Your task to perform on an android device: turn on sleep mode Image 0: 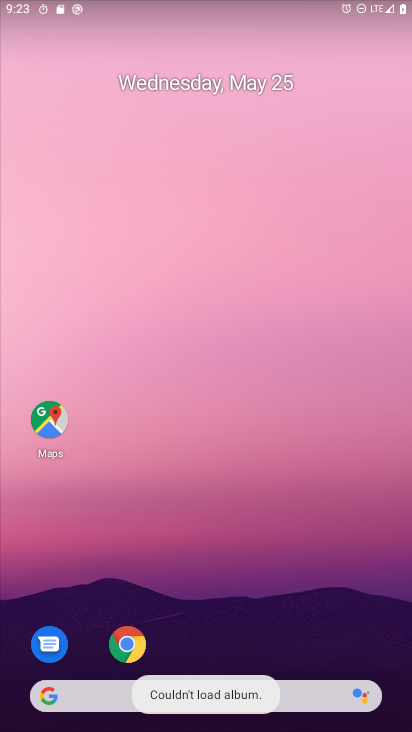
Step 0: drag from (347, 646) to (315, 29)
Your task to perform on an android device: turn on sleep mode Image 1: 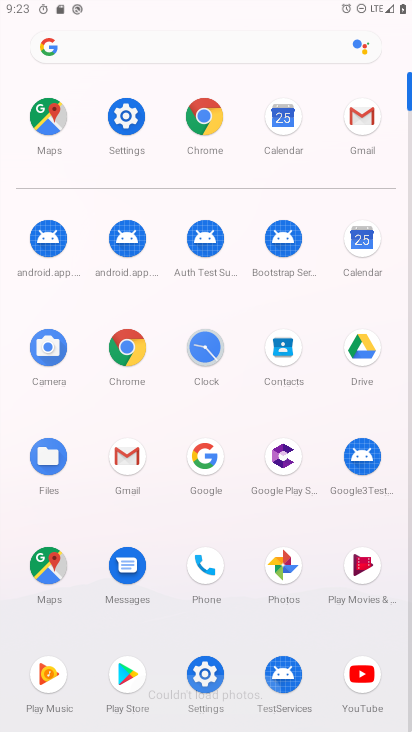
Step 1: click (128, 123)
Your task to perform on an android device: turn on sleep mode Image 2: 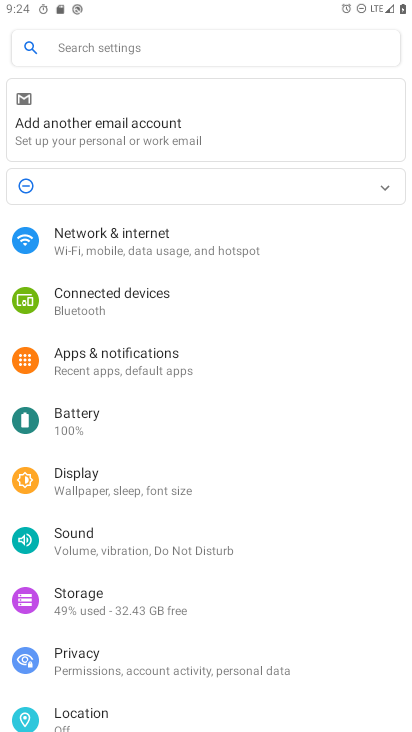
Step 2: task complete